Your task to perform on an android device: What's the weather going to be this weekend? Image 0: 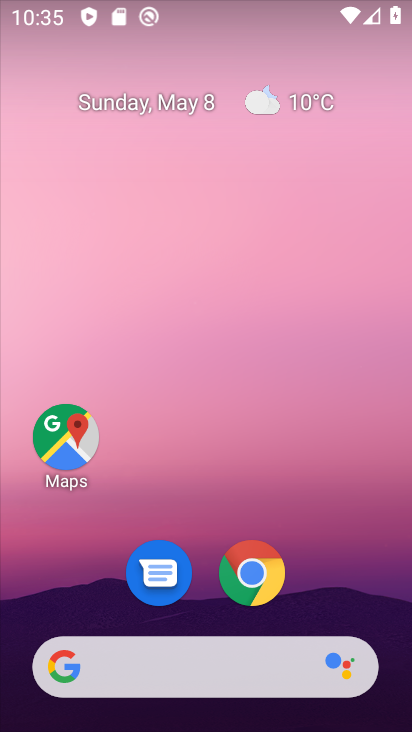
Step 0: click (238, 577)
Your task to perform on an android device: What's the weather going to be this weekend? Image 1: 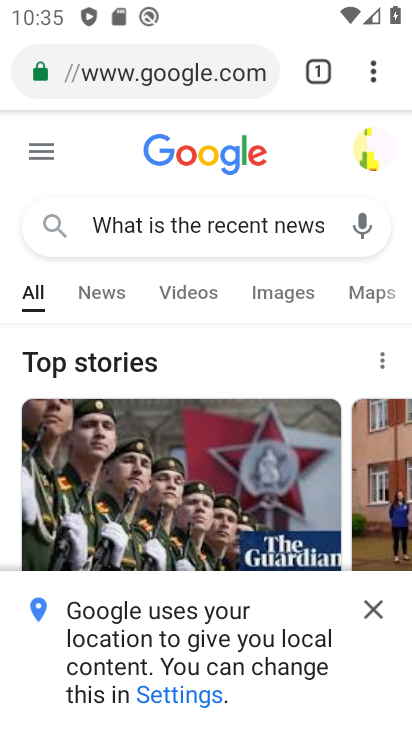
Step 1: click (263, 232)
Your task to perform on an android device: What's the weather going to be this weekend? Image 2: 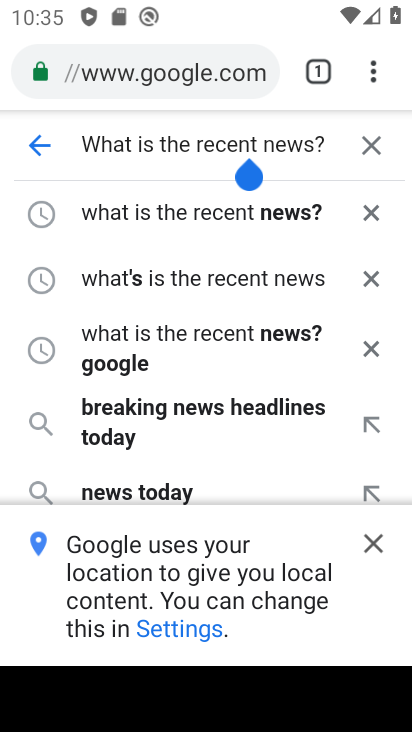
Step 2: click (381, 142)
Your task to perform on an android device: What's the weather going to be this weekend? Image 3: 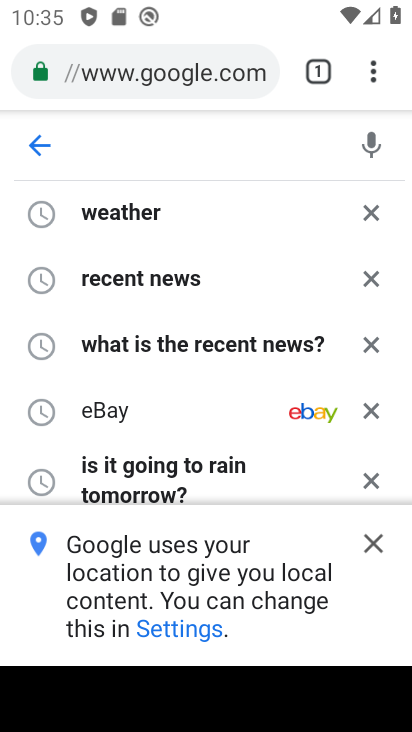
Step 3: type "What's the weather going to be this weekend?"
Your task to perform on an android device: What's the weather going to be this weekend? Image 4: 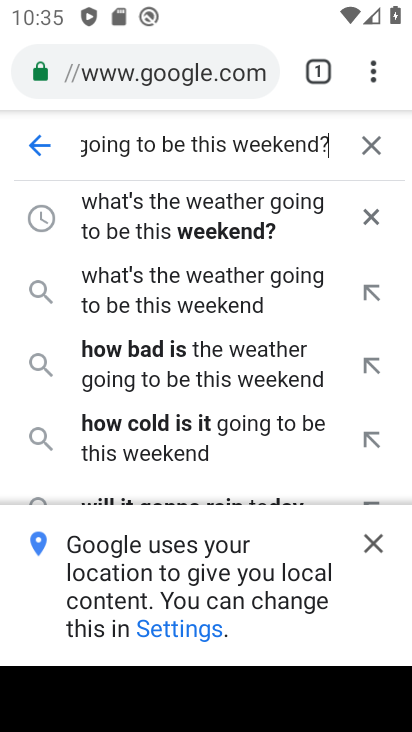
Step 4: click (132, 151)
Your task to perform on an android device: What's the weather going to be this weekend? Image 5: 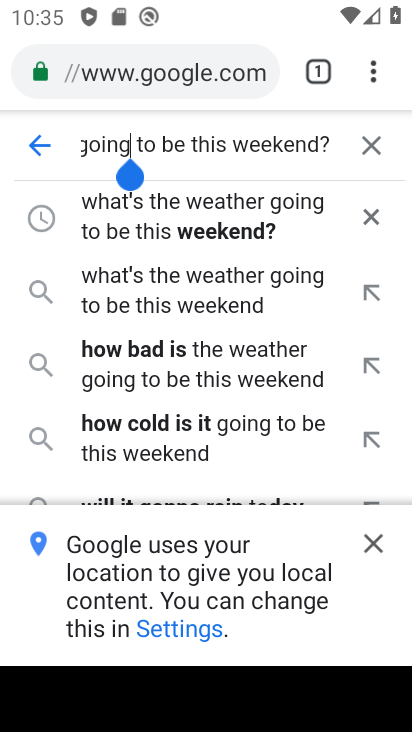
Step 5: click (169, 212)
Your task to perform on an android device: What's the weather going to be this weekend? Image 6: 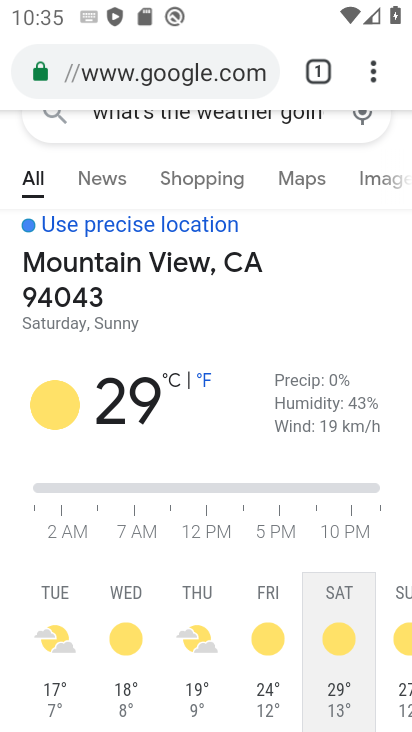
Step 6: task complete